Your task to perform on an android device: Check the news Image 0: 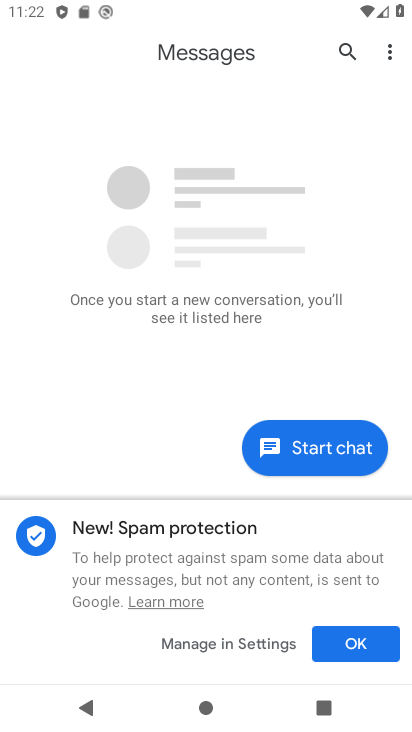
Step 0: press home button
Your task to perform on an android device: Check the news Image 1: 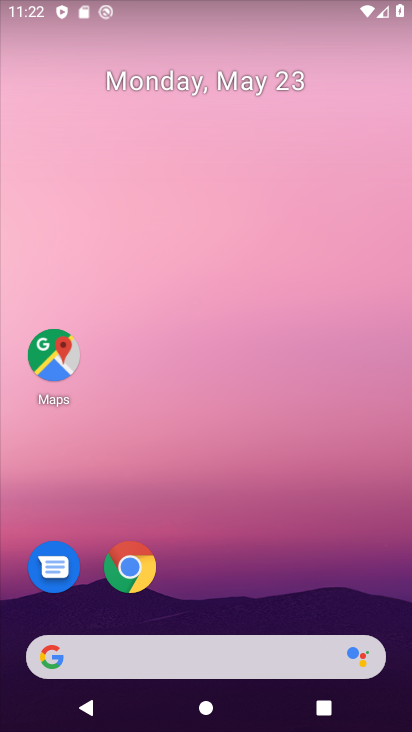
Step 1: drag from (304, 274) to (304, 155)
Your task to perform on an android device: Check the news Image 2: 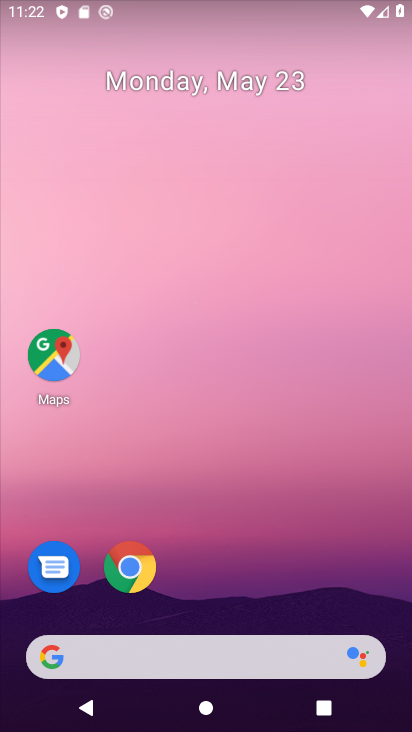
Step 2: drag from (356, 545) to (343, 188)
Your task to perform on an android device: Check the news Image 3: 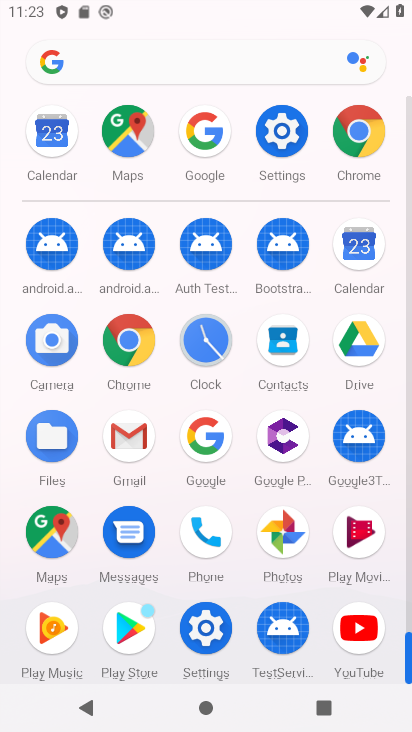
Step 3: click (182, 61)
Your task to perform on an android device: Check the news Image 4: 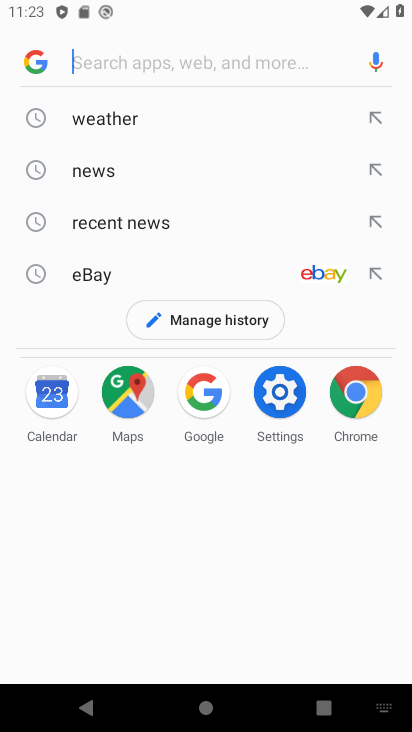
Step 4: type "check the news"
Your task to perform on an android device: Check the news Image 5: 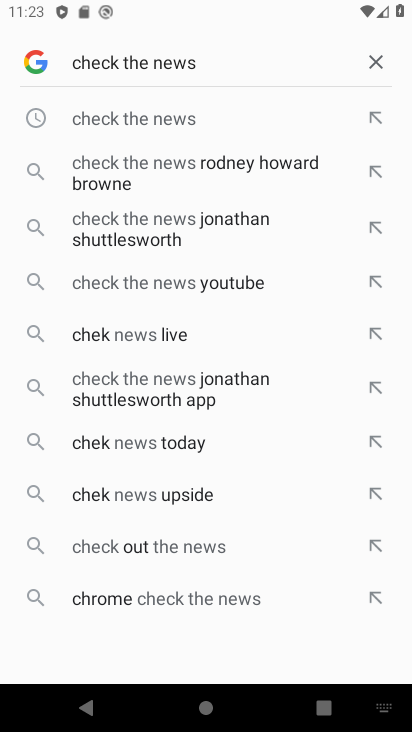
Step 5: click (159, 123)
Your task to perform on an android device: Check the news Image 6: 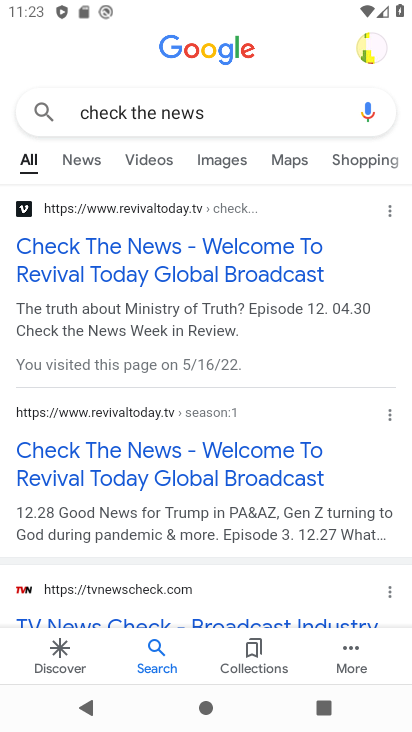
Step 6: task complete